Your task to perform on an android device: open app "Facebook Lite" (install if not already installed), go to login, and select forgot password Image 0: 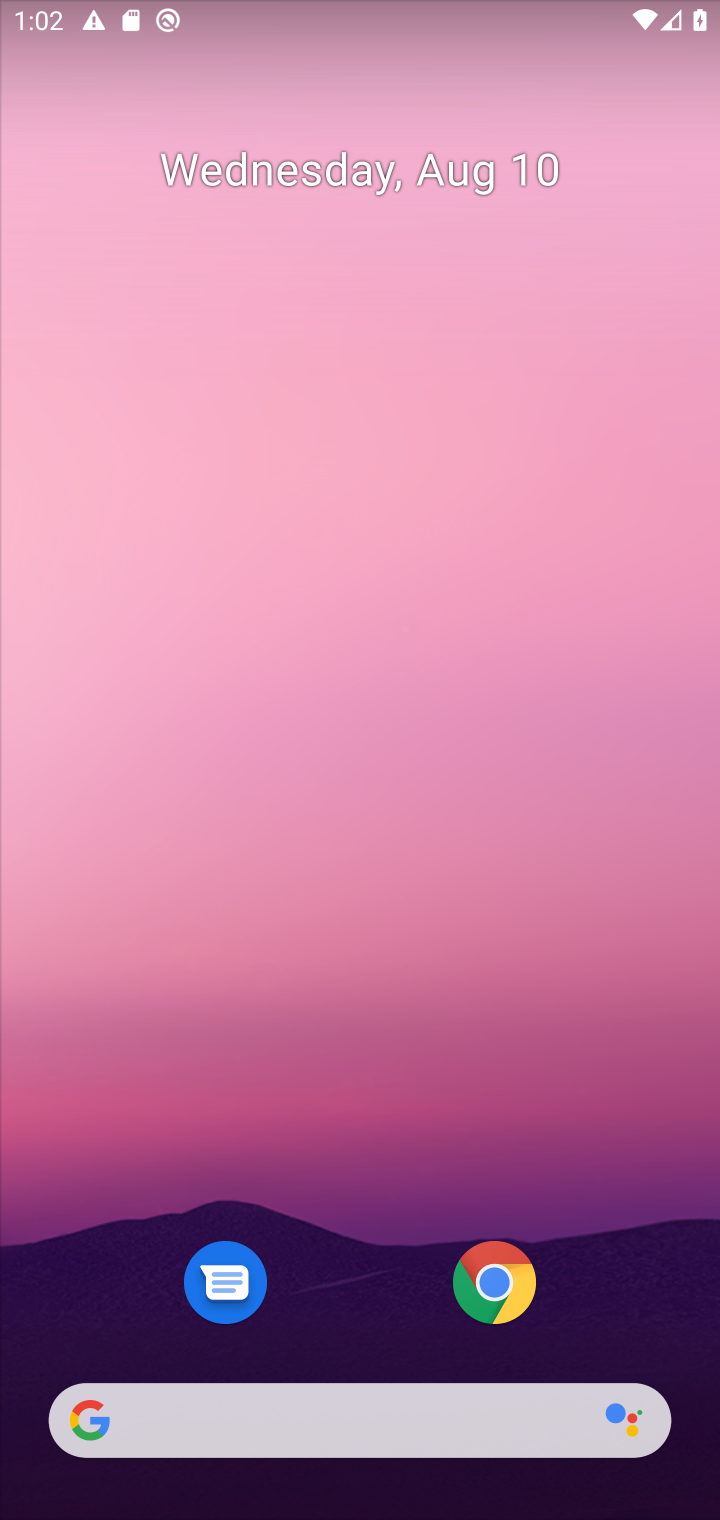
Step 0: drag from (402, 1185) to (335, 165)
Your task to perform on an android device: open app "Facebook Lite" (install if not already installed), go to login, and select forgot password Image 1: 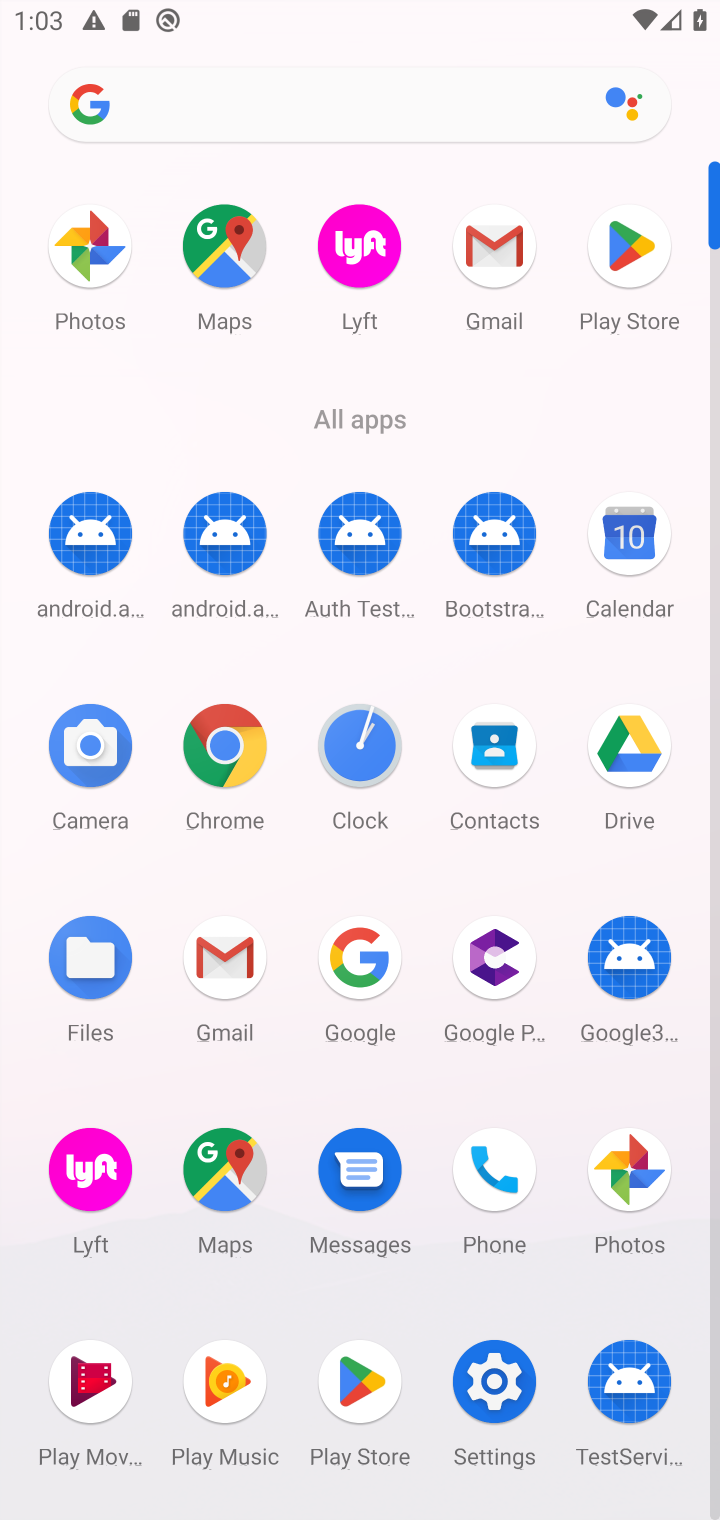
Step 1: click (336, 1385)
Your task to perform on an android device: open app "Facebook Lite" (install if not already installed), go to login, and select forgot password Image 2: 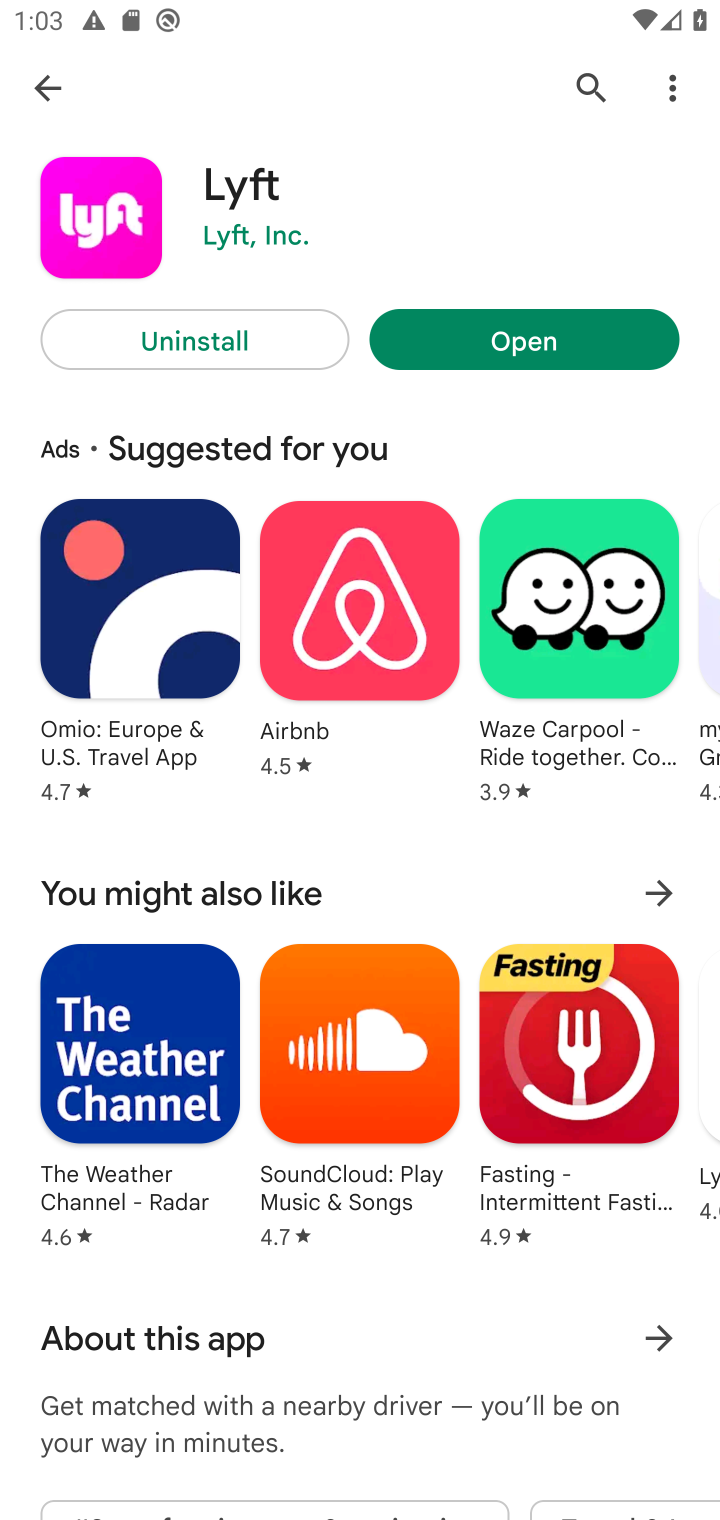
Step 2: click (28, 84)
Your task to perform on an android device: open app "Facebook Lite" (install if not already installed), go to login, and select forgot password Image 3: 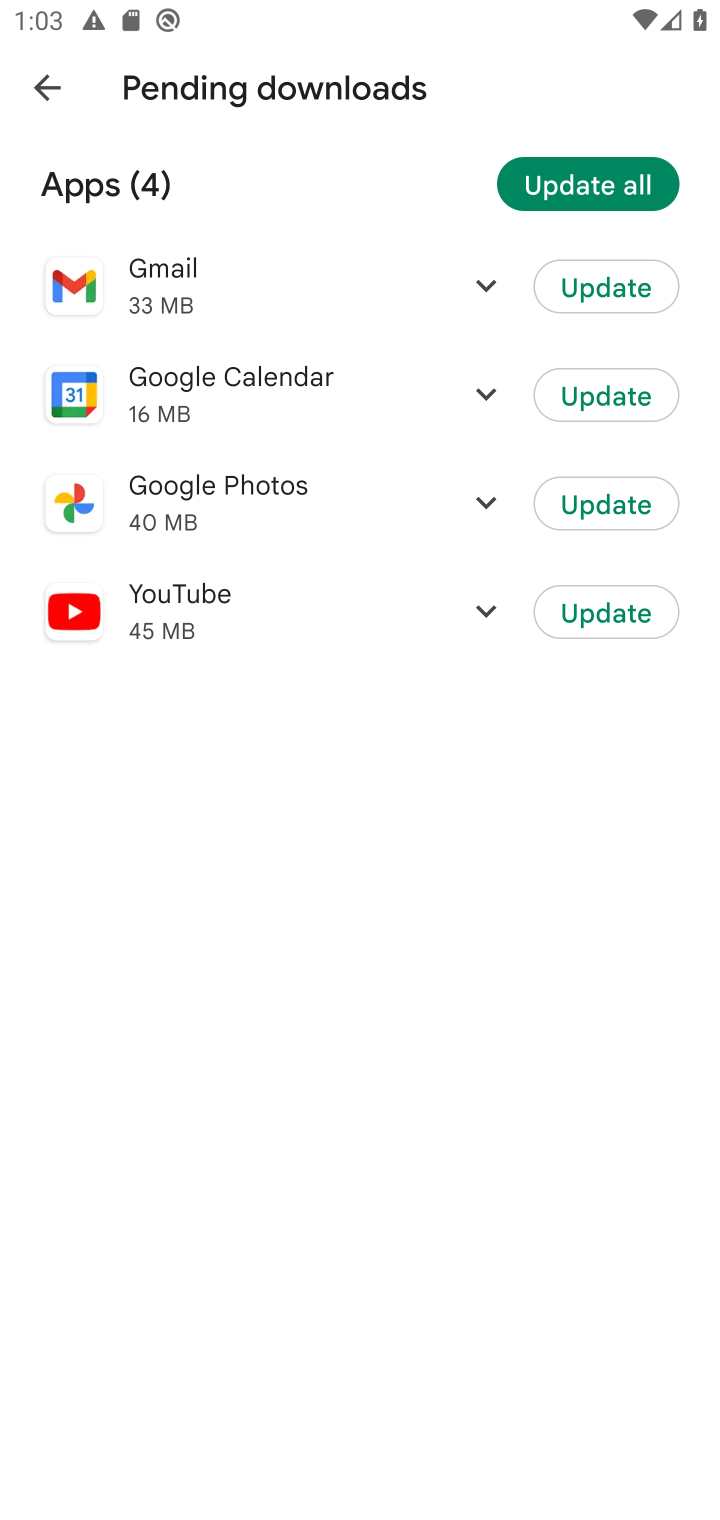
Step 3: click (44, 102)
Your task to perform on an android device: open app "Facebook Lite" (install if not already installed), go to login, and select forgot password Image 4: 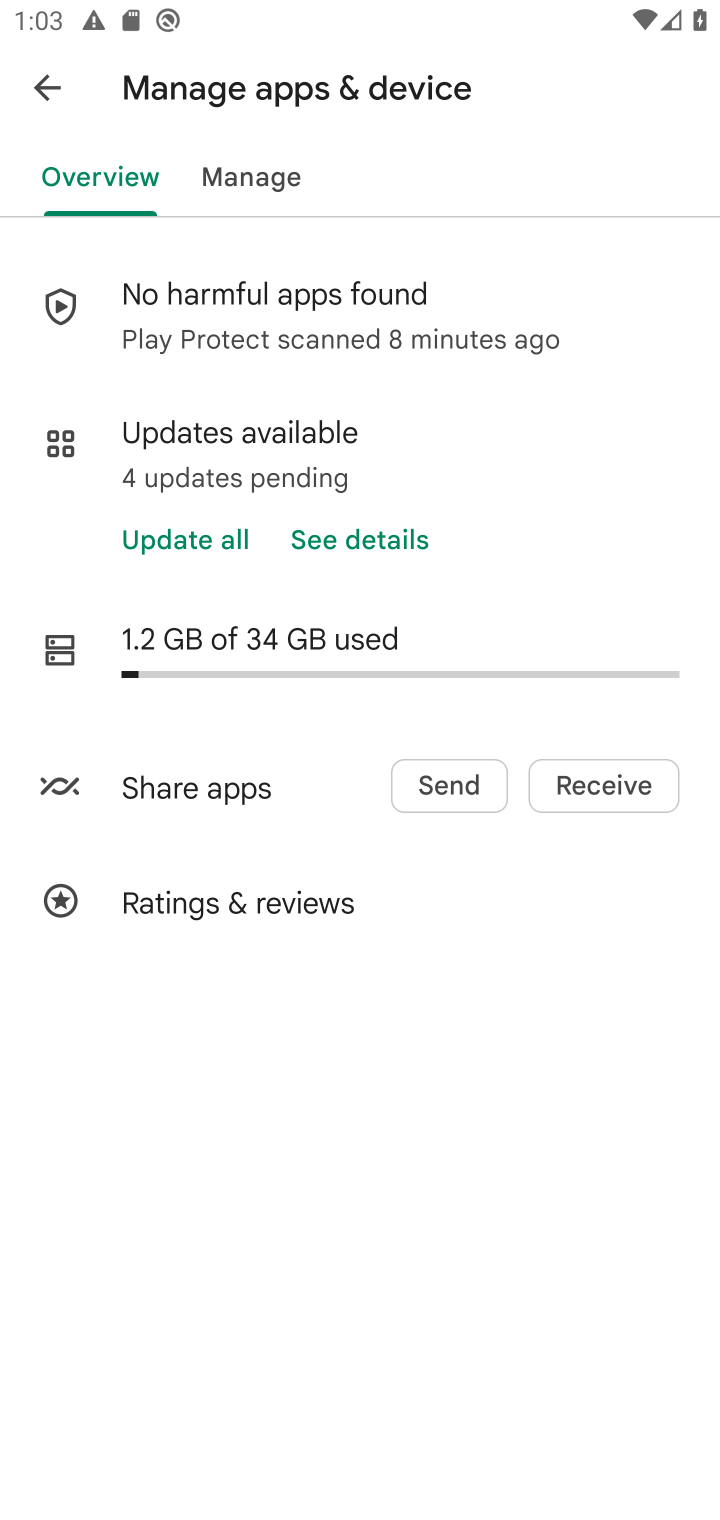
Step 4: click (60, 86)
Your task to perform on an android device: open app "Facebook Lite" (install if not already installed), go to login, and select forgot password Image 5: 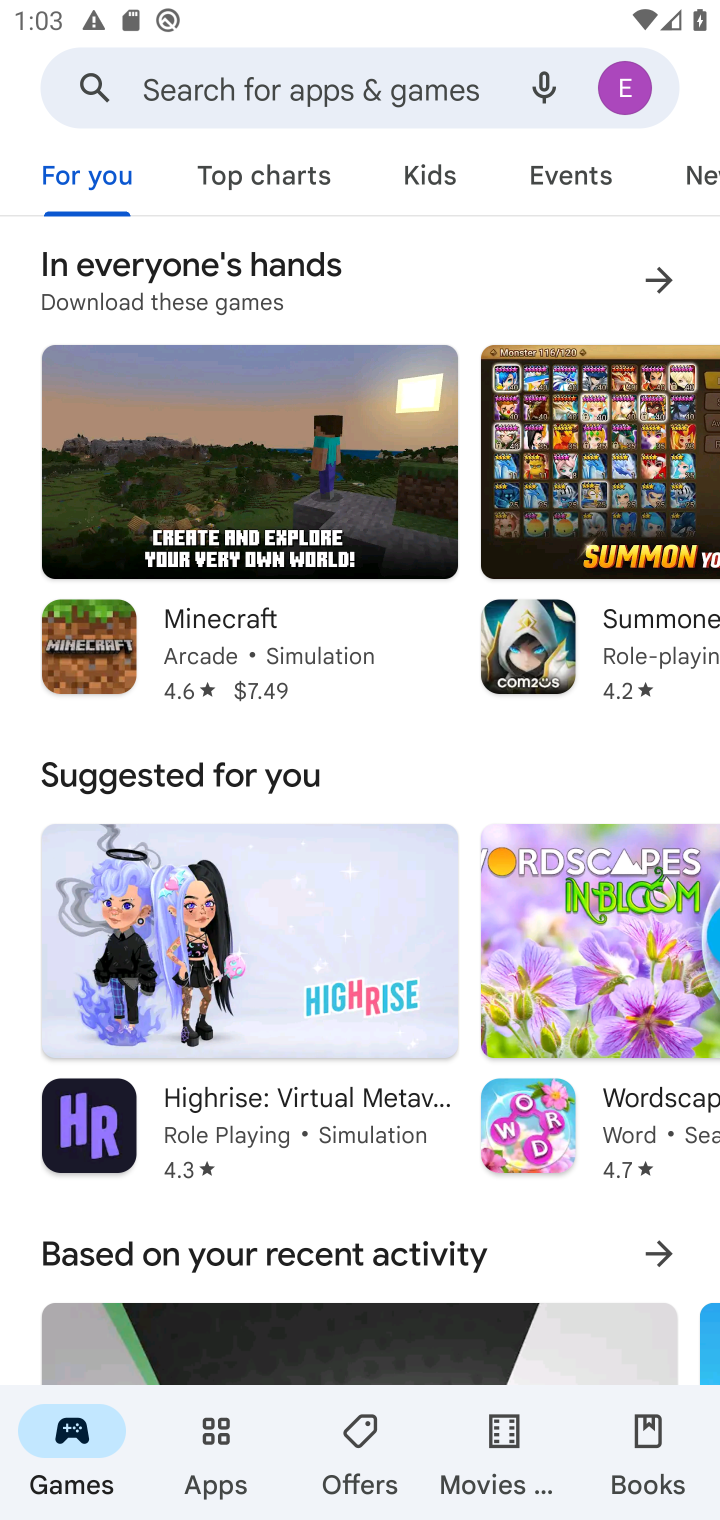
Step 5: click (163, 94)
Your task to perform on an android device: open app "Facebook Lite" (install if not already installed), go to login, and select forgot password Image 6: 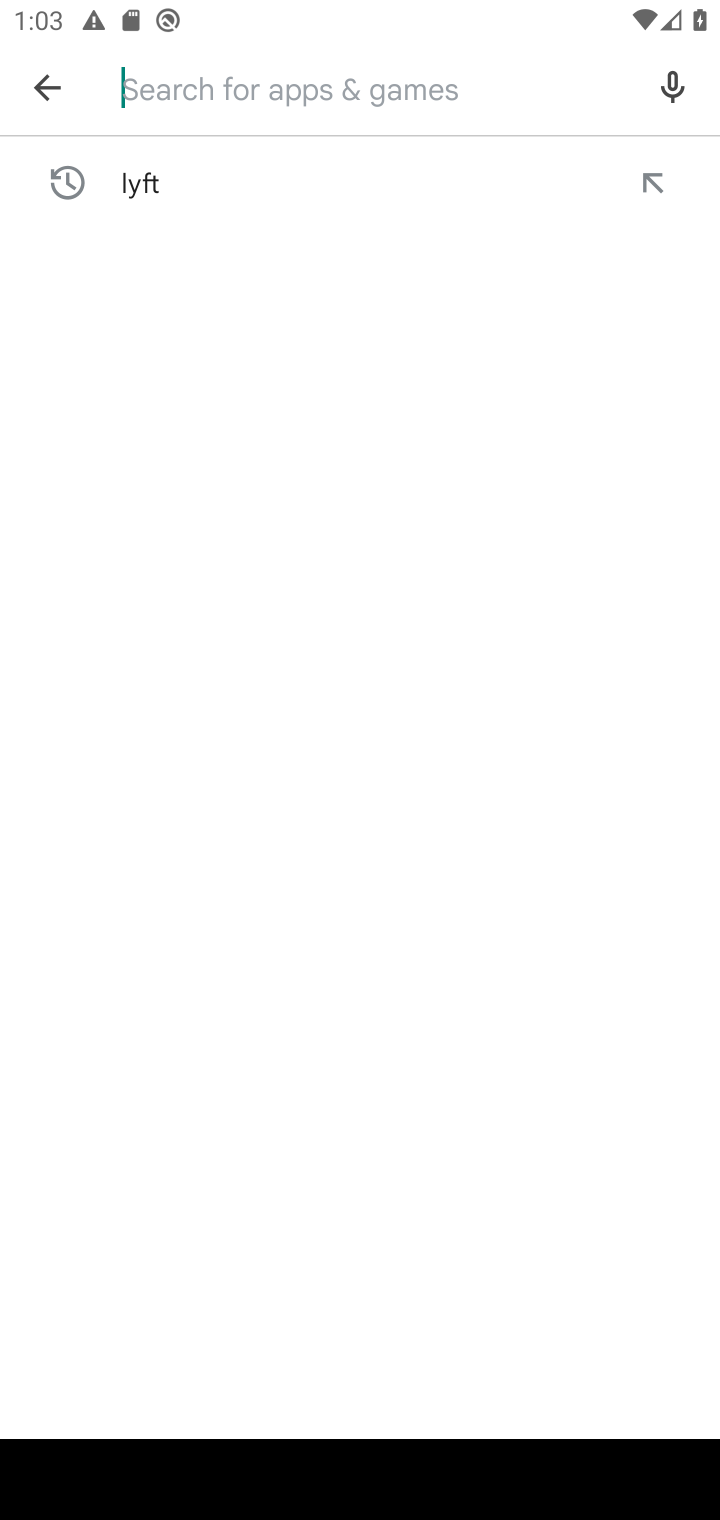
Step 6: type "Facebook Lite"
Your task to perform on an android device: open app "Facebook Lite" (install if not already installed), go to login, and select forgot password Image 7: 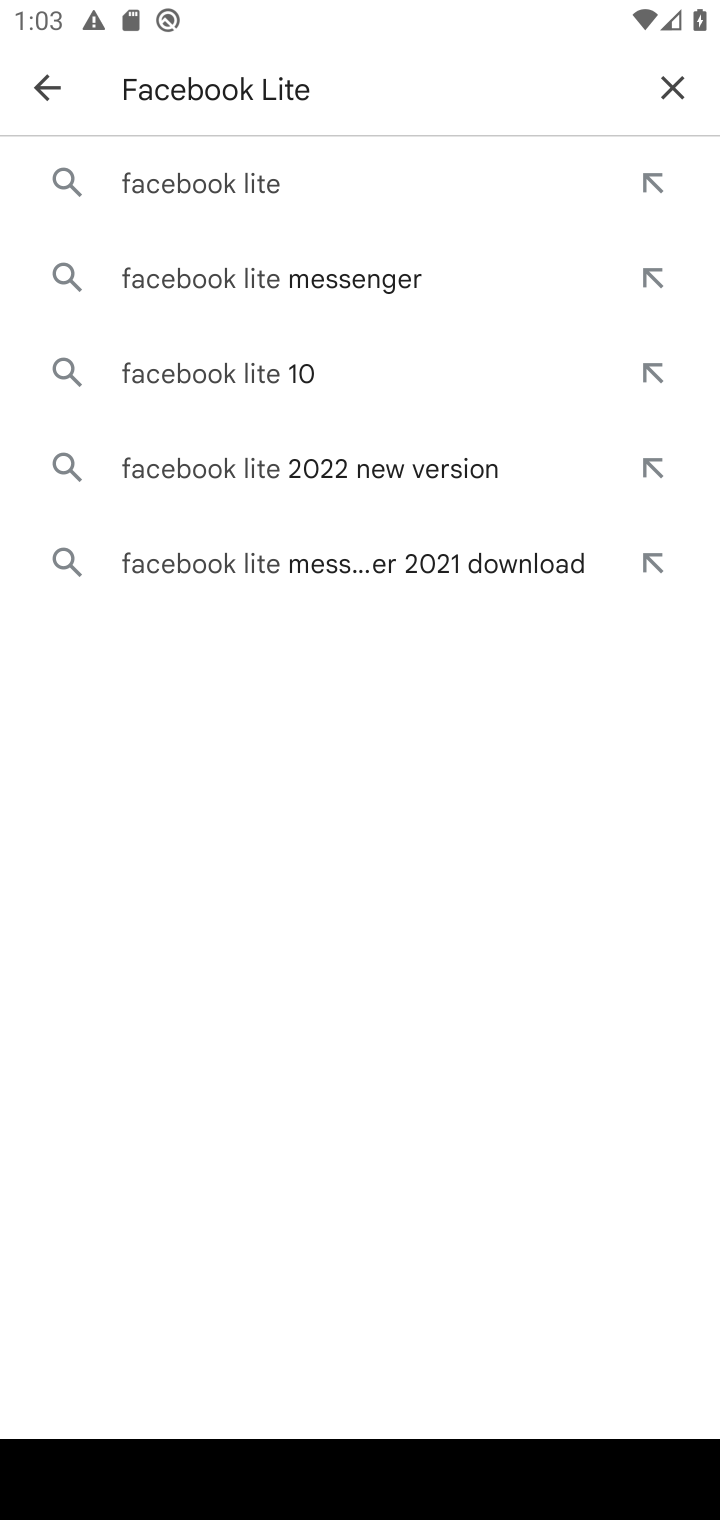
Step 7: click (207, 192)
Your task to perform on an android device: open app "Facebook Lite" (install if not already installed), go to login, and select forgot password Image 8: 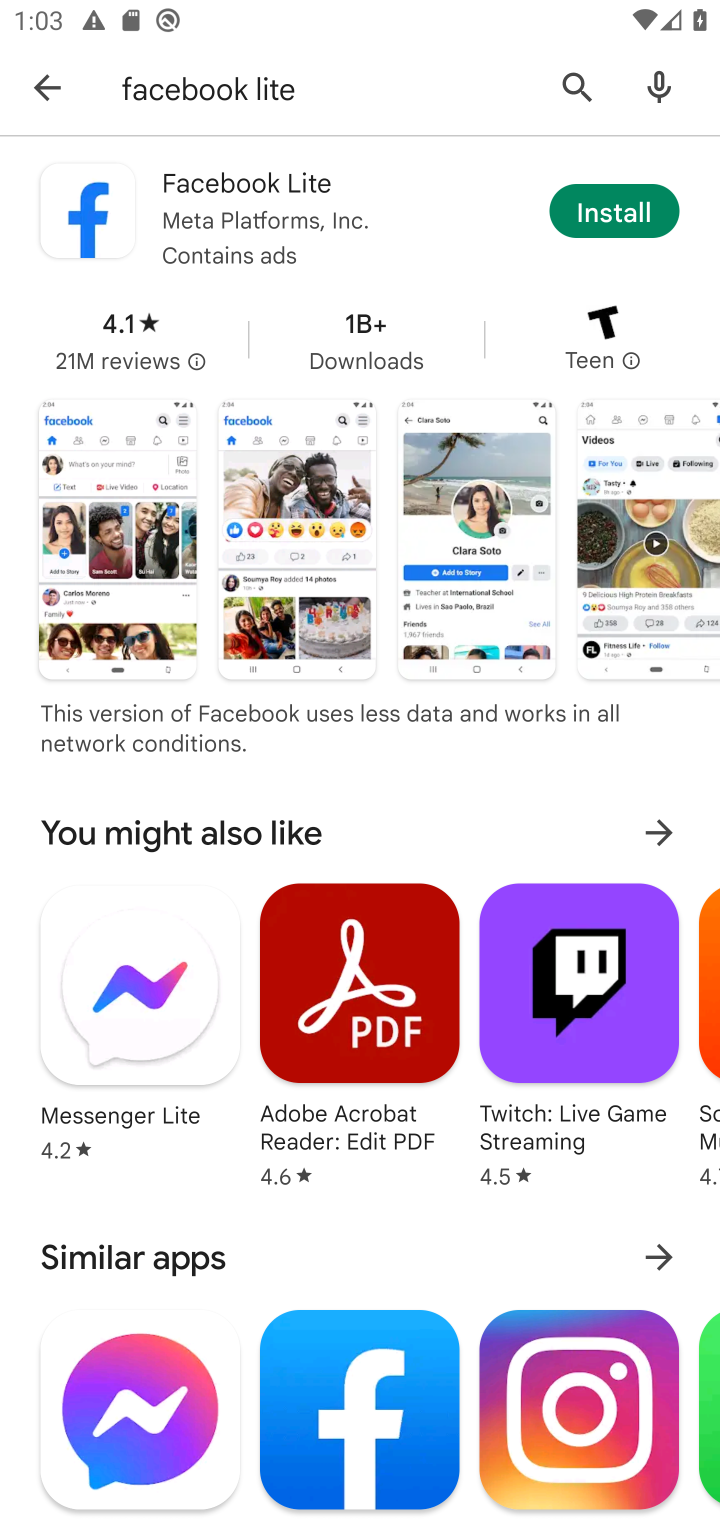
Step 8: click (652, 212)
Your task to perform on an android device: open app "Facebook Lite" (install if not already installed), go to login, and select forgot password Image 9: 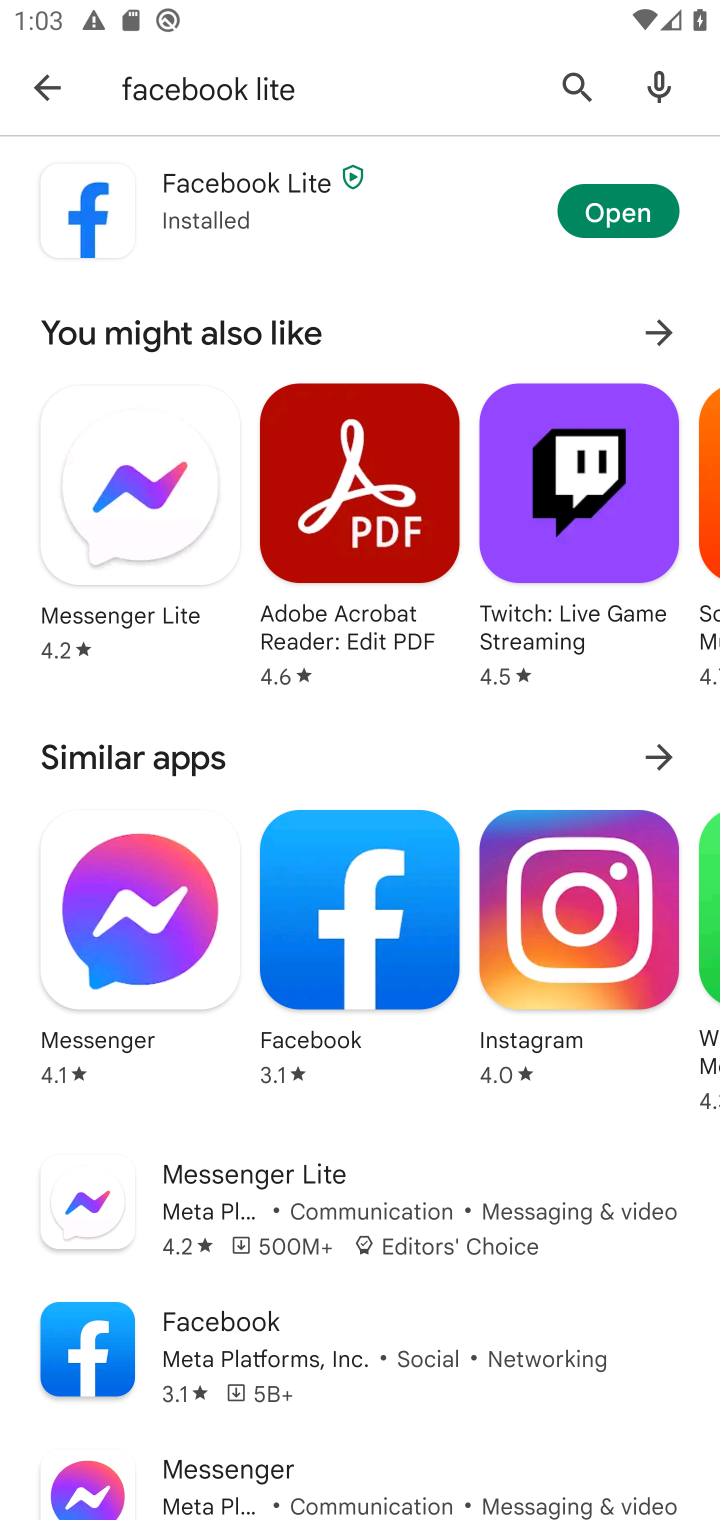
Step 9: click (625, 226)
Your task to perform on an android device: open app "Facebook Lite" (install if not already installed), go to login, and select forgot password Image 10: 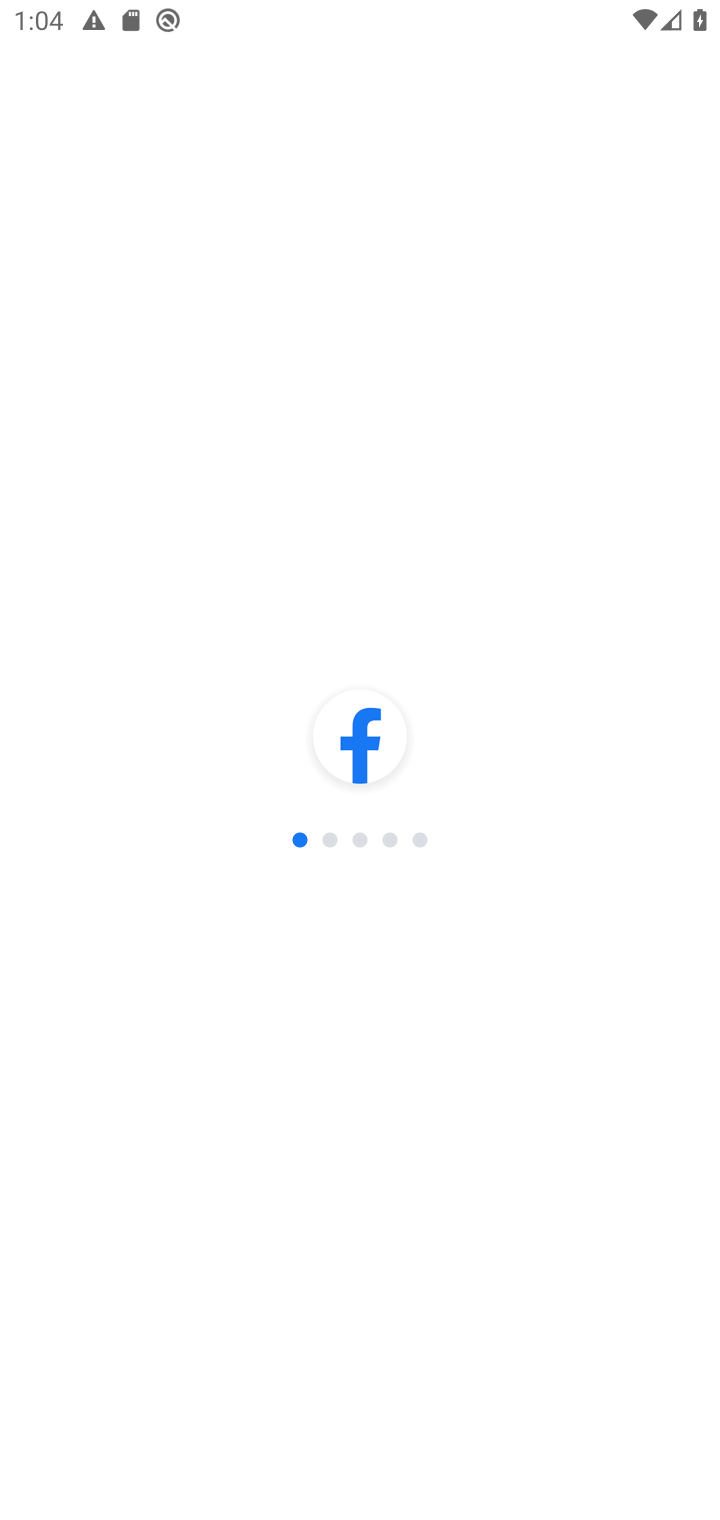
Step 10: task complete